Your task to perform on an android device: toggle notifications settings in the gmail app Image 0: 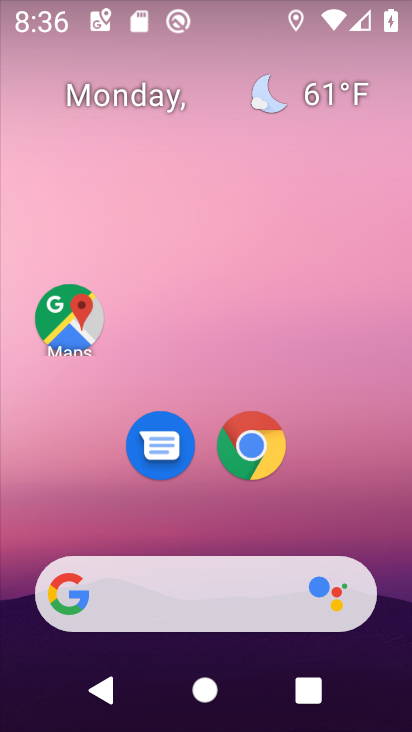
Step 0: drag from (210, 511) to (225, 6)
Your task to perform on an android device: toggle notifications settings in the gmail app Image 1: 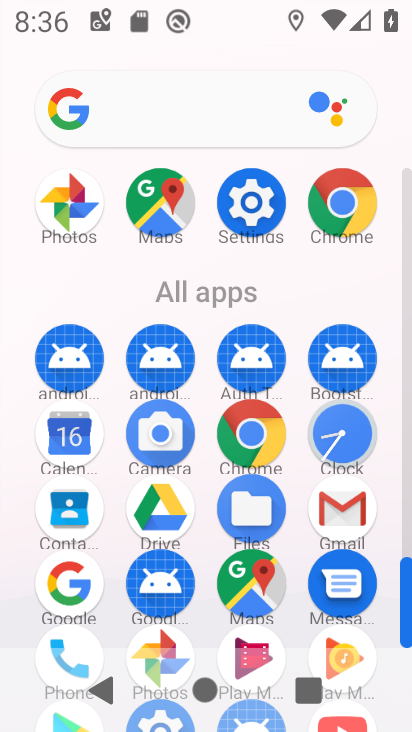
Step 1: click (345, 505)
Your task to perform on an android device: toggle notifications settings in the gmail app Image 2: 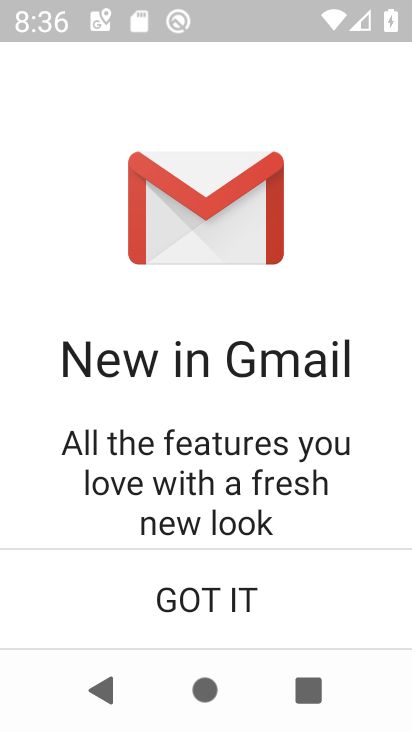
Step 2: click (218, 614)
Your task to perform on an android device: toggle notifications settings in the gmail app Image 3: 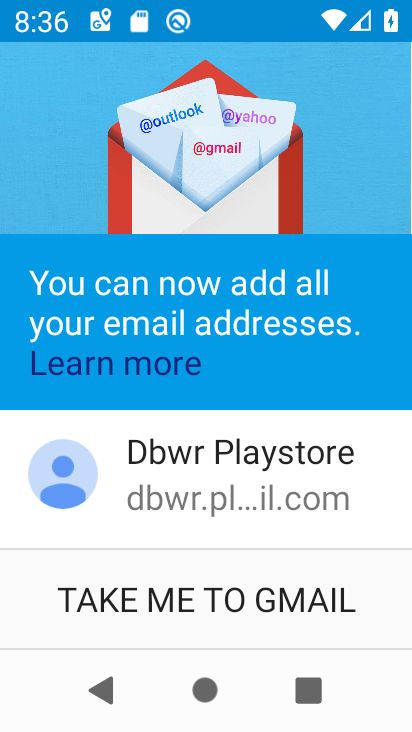
Step 3: click (203, 617)
Your task to perform on an android device: toggle notifications settings in the gmail app Image 4: 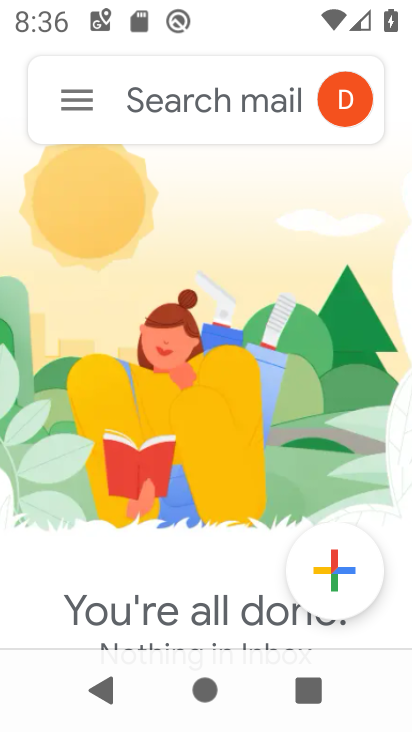
Step 4: click (71, 90)
Your task to perform on an android device: toggle notifications settings in the gmail app Image 5: 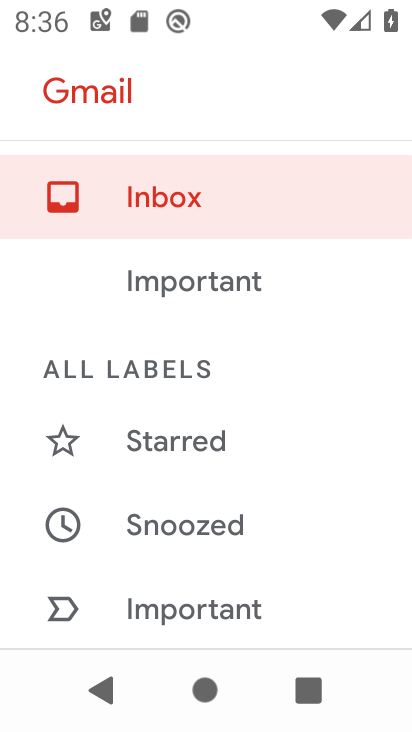
Step 5: drag from (176, 548) to (208, 218)
Your task to perform on an android device: toggle notifications settings in the gmail app Image 6: 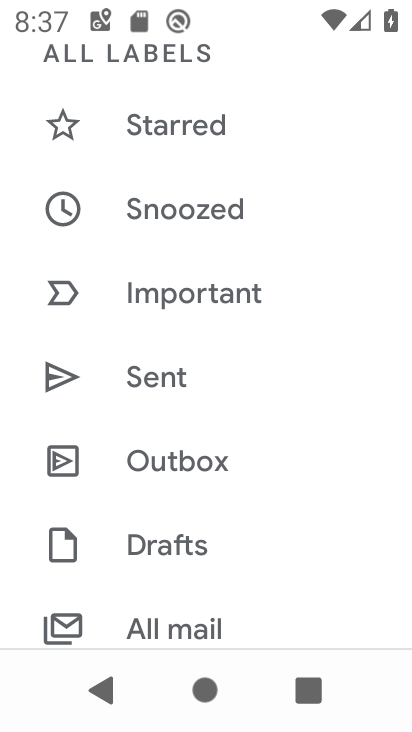
Step 6: drag from (180, 600) to (217, 40)
Your task to perform on an android device: toggle notifications settings in the gmail app Image 7: 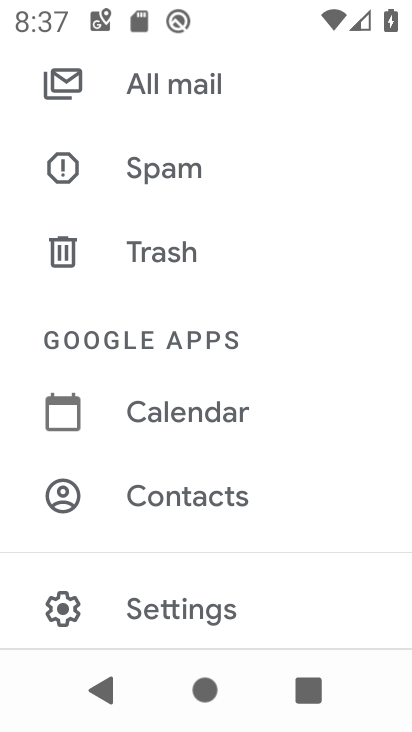
Step 7: click (245, 604)
Your task to perform on an android device: toggle notifications settings in the gmail app Image 8: 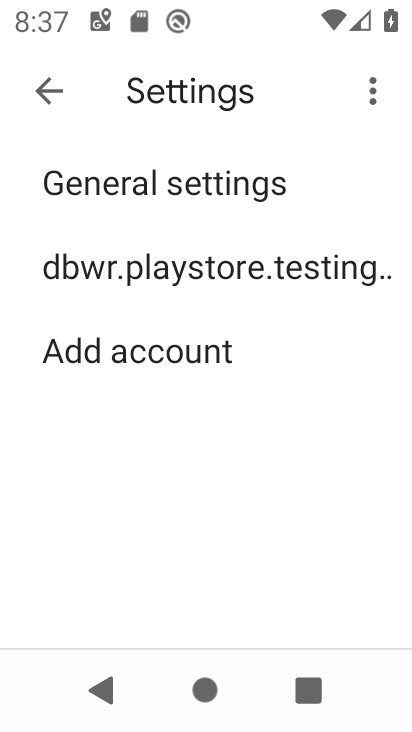
Step 8: click (300, 177)
Your task to perform on an android device: toggle notifications settings in the gmail app Image 9: 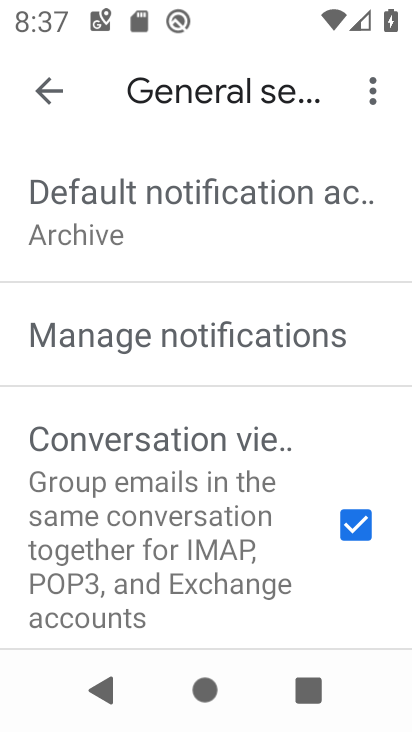
Step 9: click (153, 356)
Your task to perform on an android device: toggle notifications settings in the gmail app Image 10: 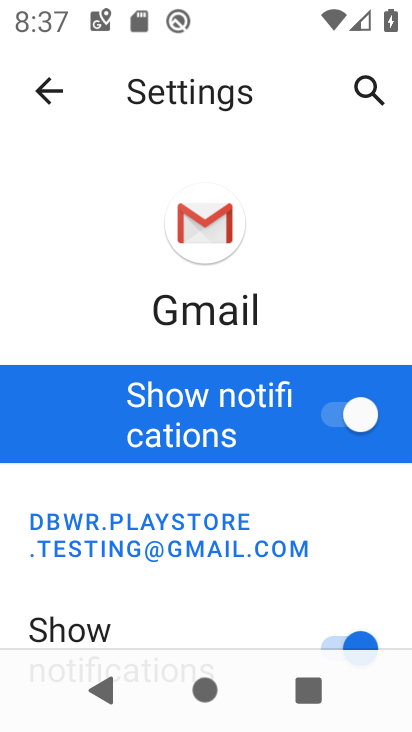
Step 10: drag from (207, 593) to (220, 123)
Your task to perform on an android device: toggle notifications settings in the gmail app Image 11: 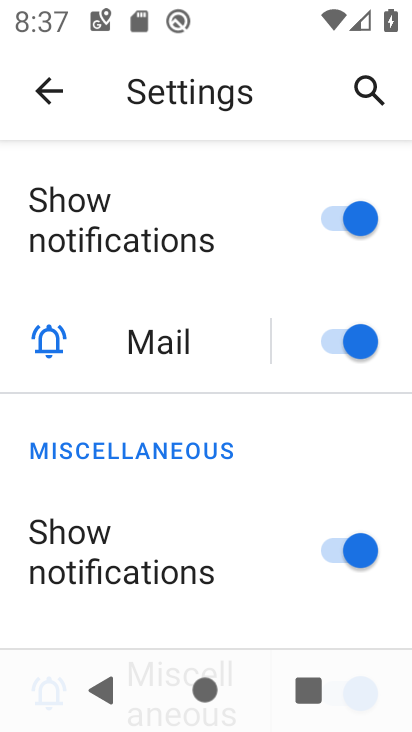
Step 11: click (340, 216)
Your task to perform on an android device: toggle notifications settings in the gmail app Image 12: 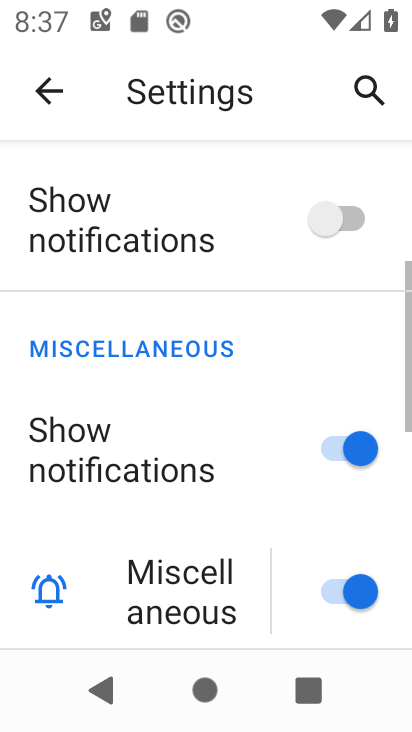
Step 12: task complete